Your task to perform on an android device: uninstall "Google Find My Device" Image 0: 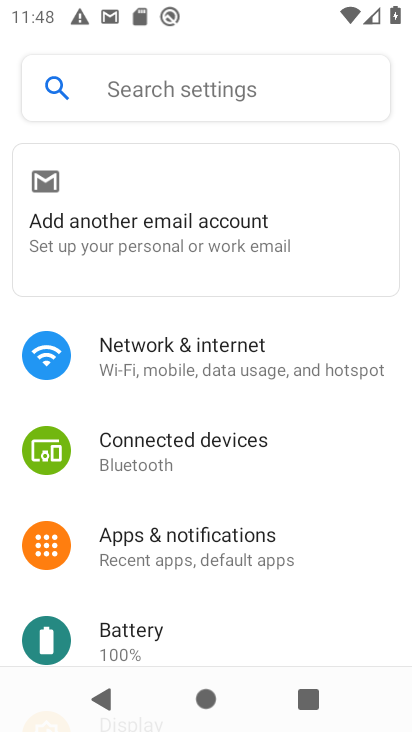
Step 0: press home button
Your task to perform on an android device: uninstall "Google Find My Device" Image 1: 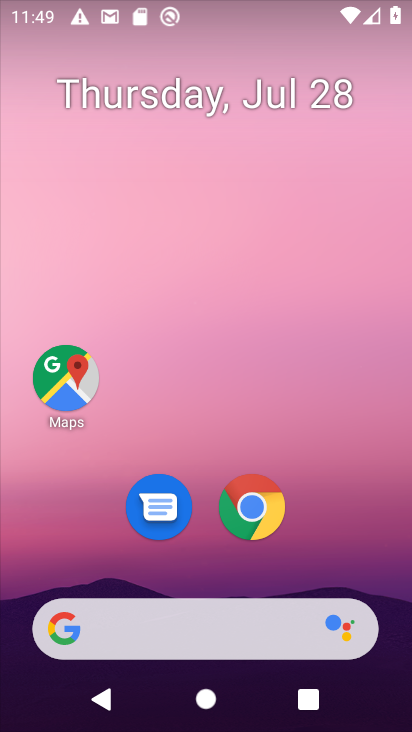
Step 1: drag from (206, 537) to (195, 1)
Your task to perform on an android device: uninstall "Google Find My Device" Image 2: 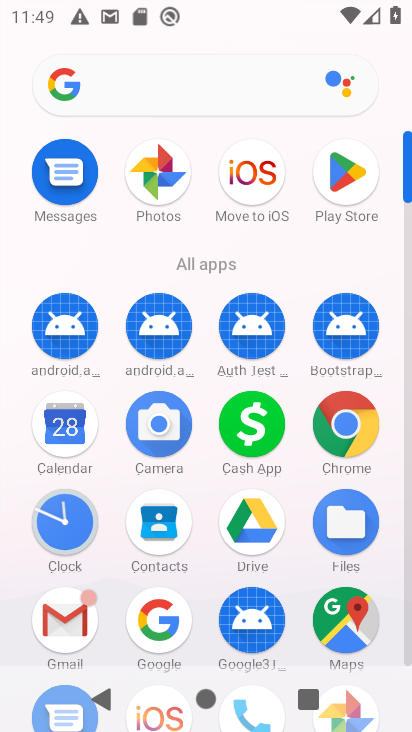
Step 2: click (358, 185)
Your task to perform on an android device: uninstall "Google Find My Device" Image 3: 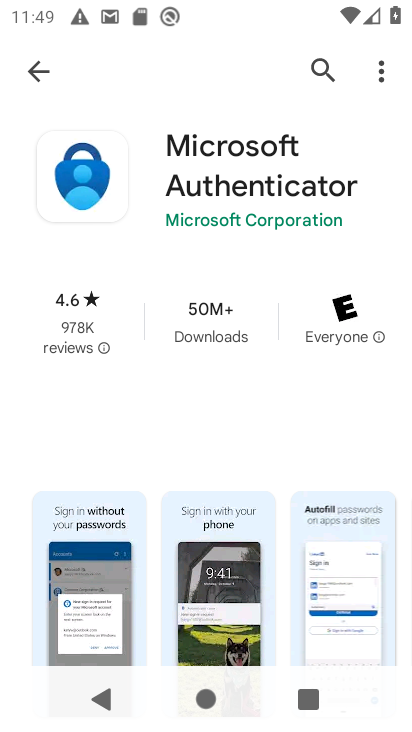
Step 3: click (35, 61)
Your task to perform on an android device: uninstall "Google Find My Device" Image 4: 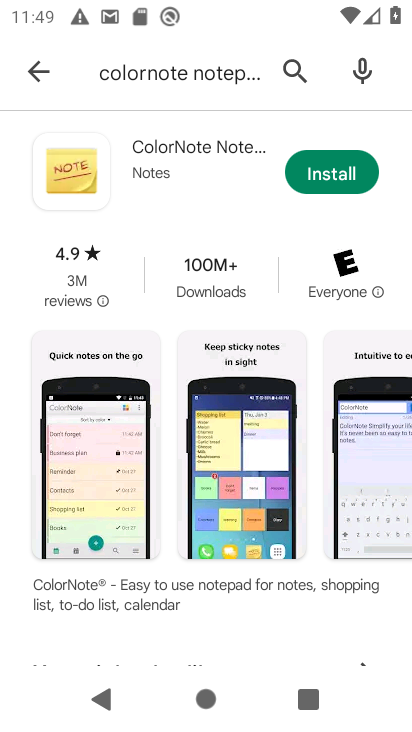
Step 4: click (162, 61)
Your task to perform on an android device: uninstall "Google Find My Device" Image 5: 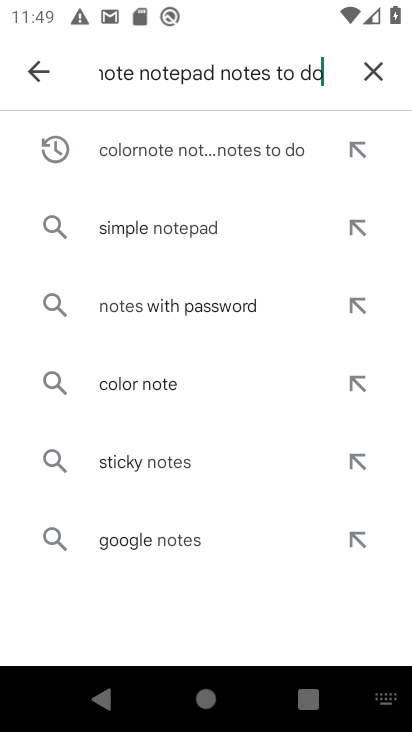
Step 5: click (384, 70)
Your task to perform on an android device: uninstall "Google Find My Device" Image 6: 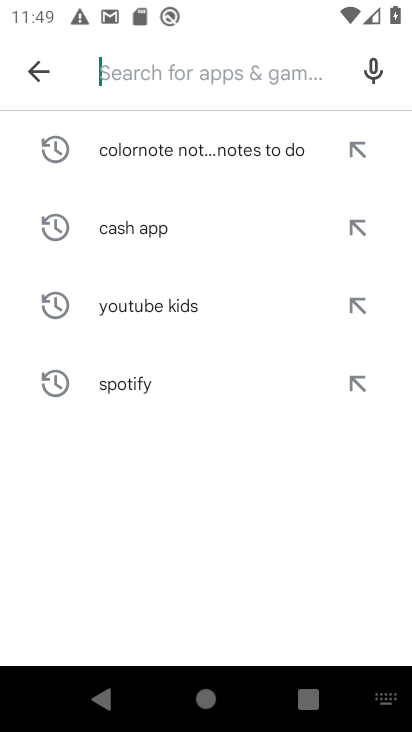
Step 6: type "google Find My device"
Your task to perform on an android device: uninstall "Google Find My Device" Image 7: 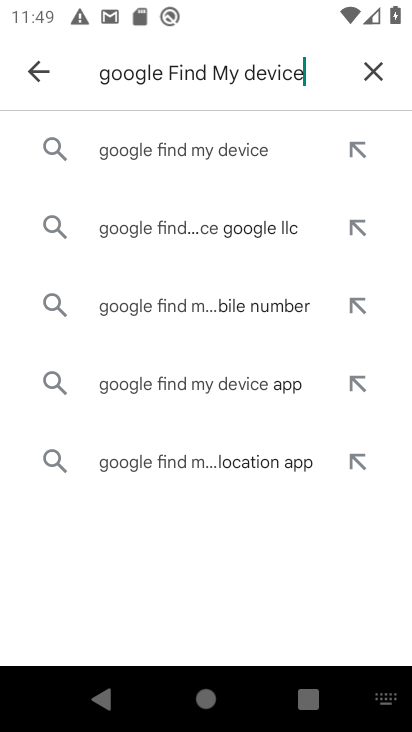
Step 7: click (176, 163)
Your task to perform on an android device: uninstall "Google Find My Device" Image 8: 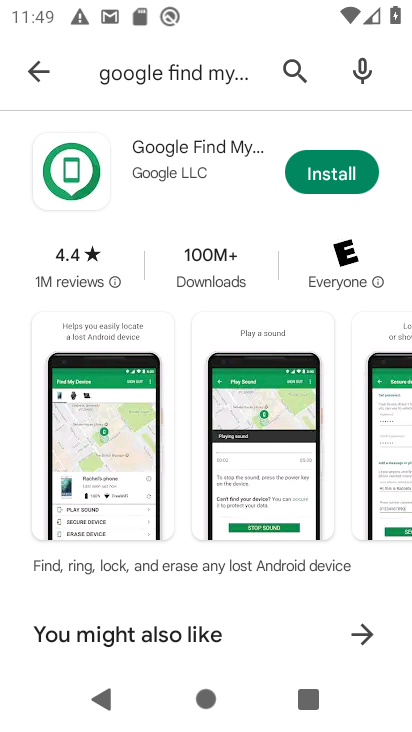
Step 8: task complete